Your task to perform on an android device: Open Yahoo.com Image 0: 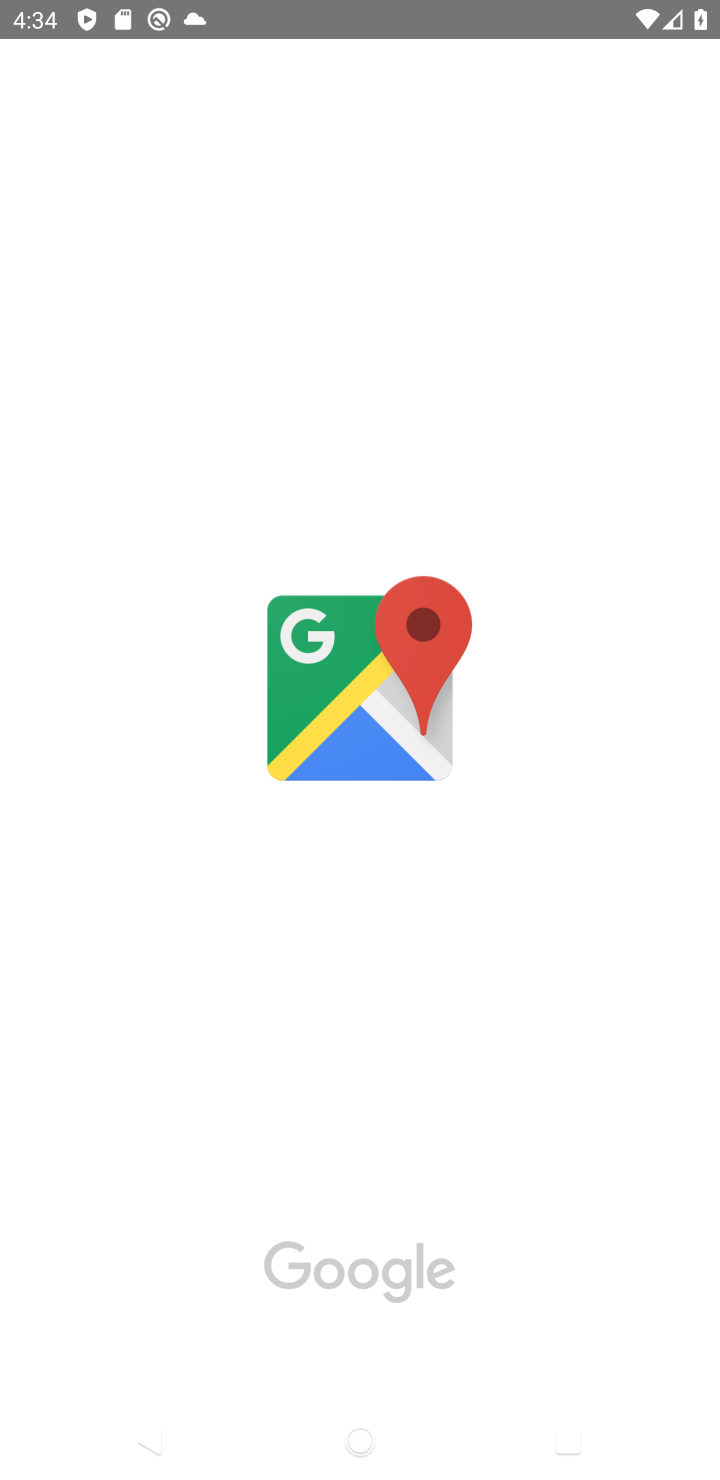
Step 0: press home button
Your task to perform on an android device: Open Yahoo.com Image 1: 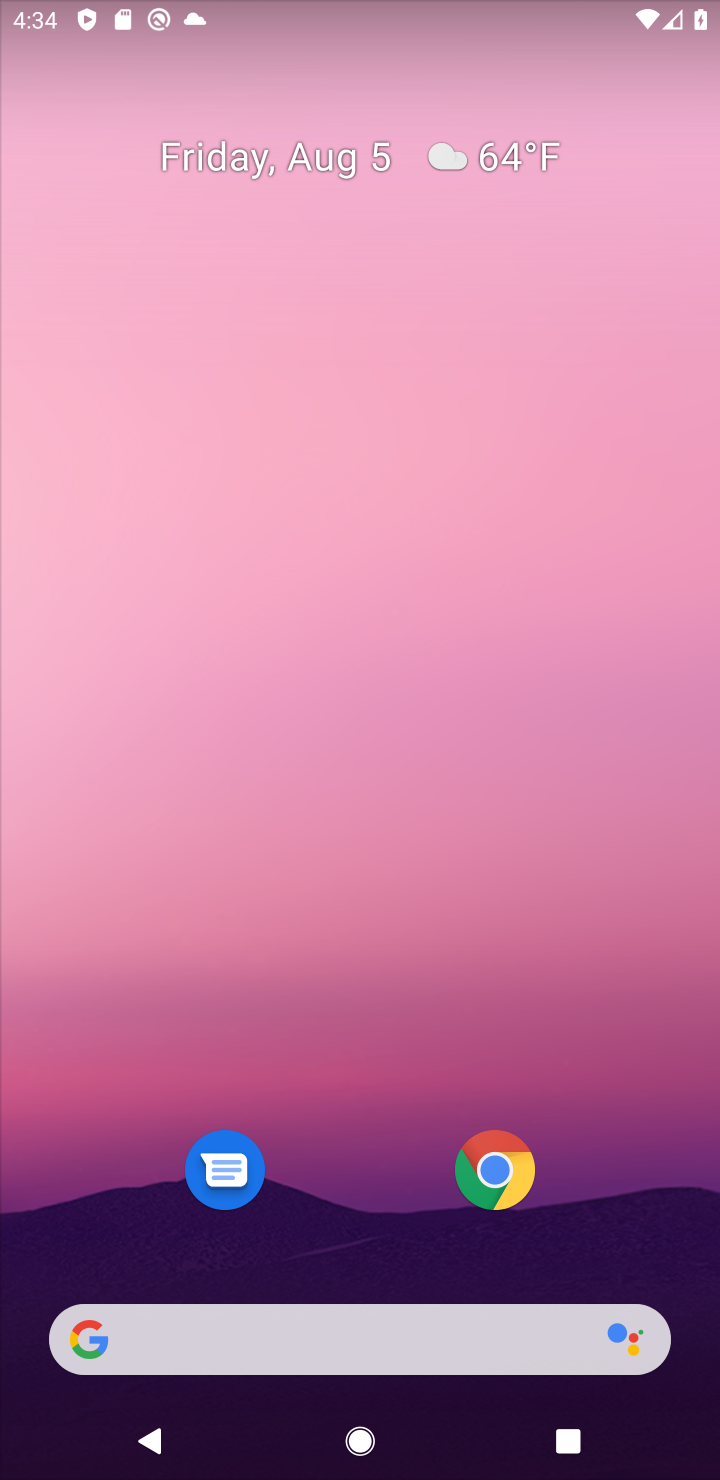
Step 1: click (78, 1356)
Your task to perform on an android device: Open Yahoo.com Image 2: 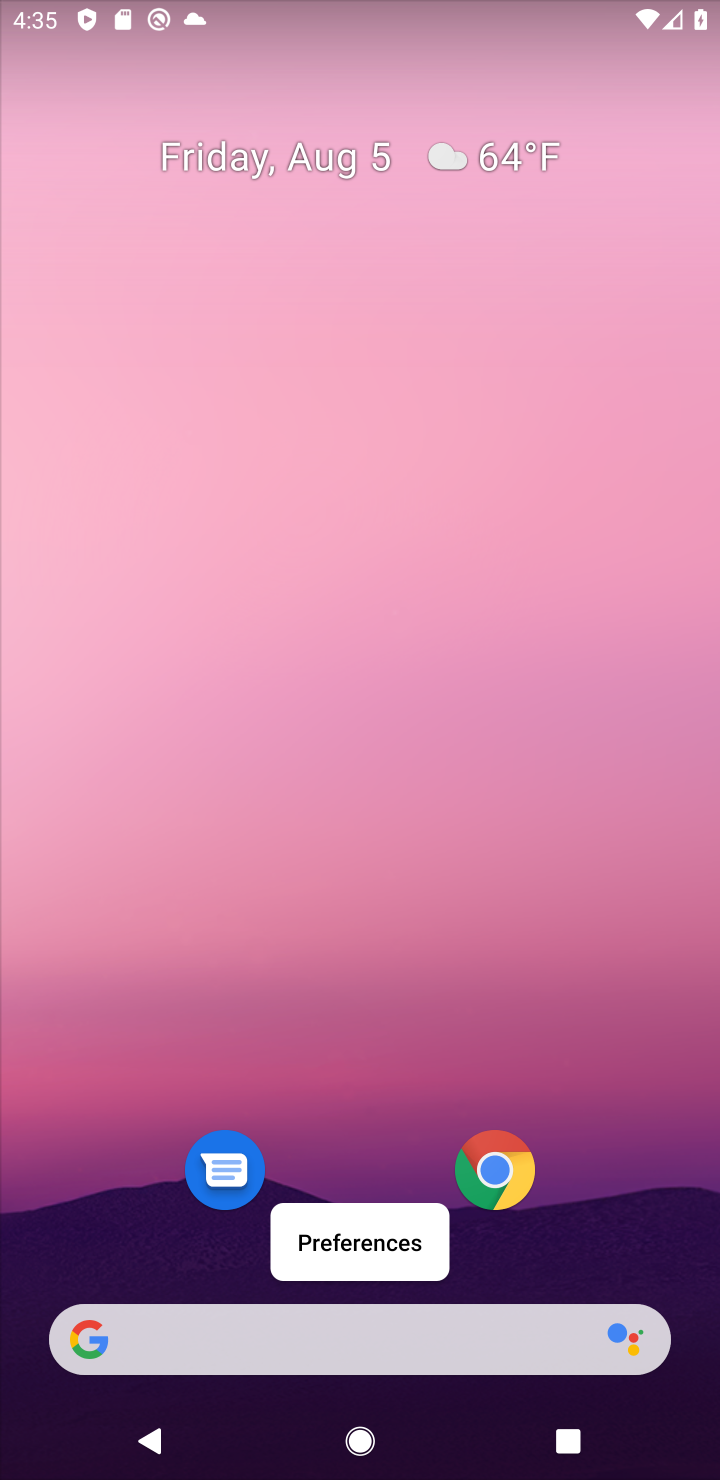
Step 2: type "Yahoo.com"
Your task to perform on an android device: Open Yahoo.com Image 3: 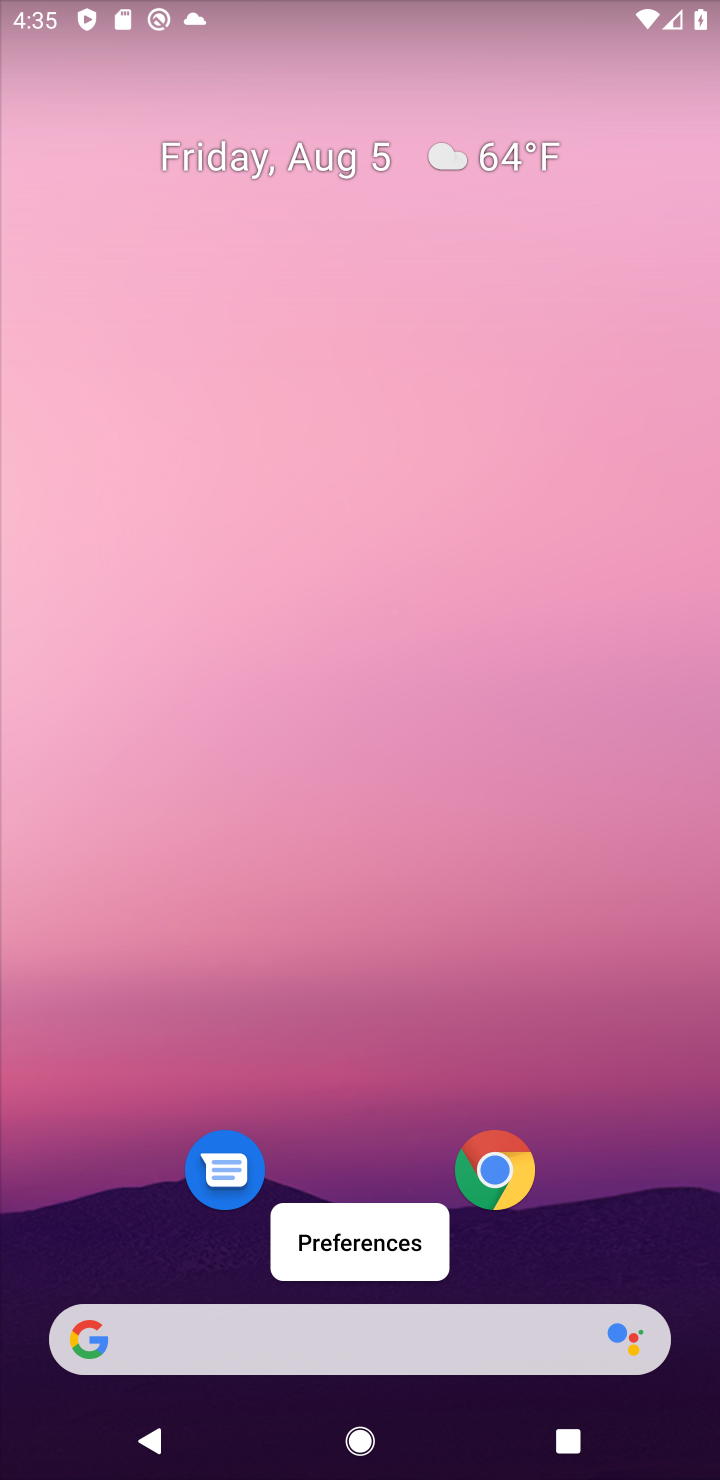
Step 3: click (85, 1341)
Your task to perform on an android device: Open Yahoo.com Image 4: 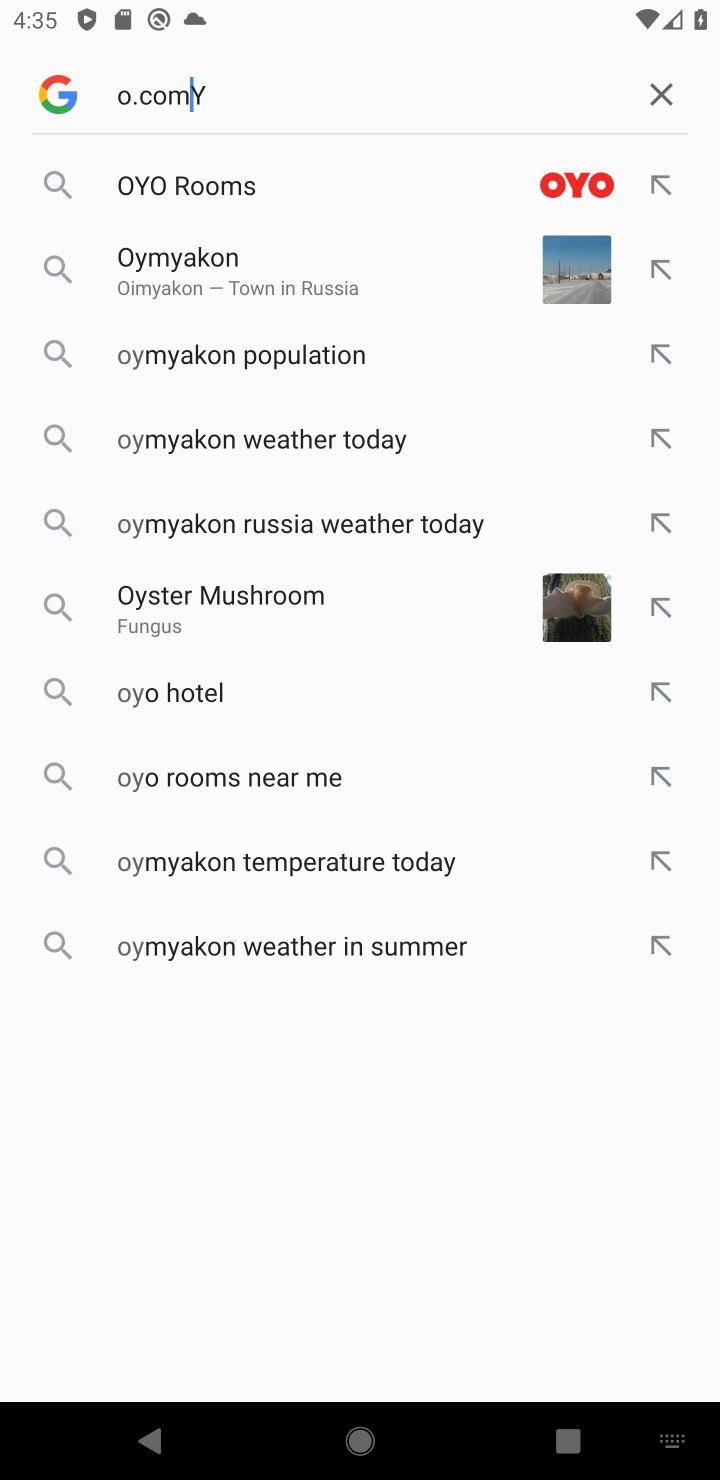
Step 4: press enter
Your task to perform on an android device: Open Yahoo.com Image 5: 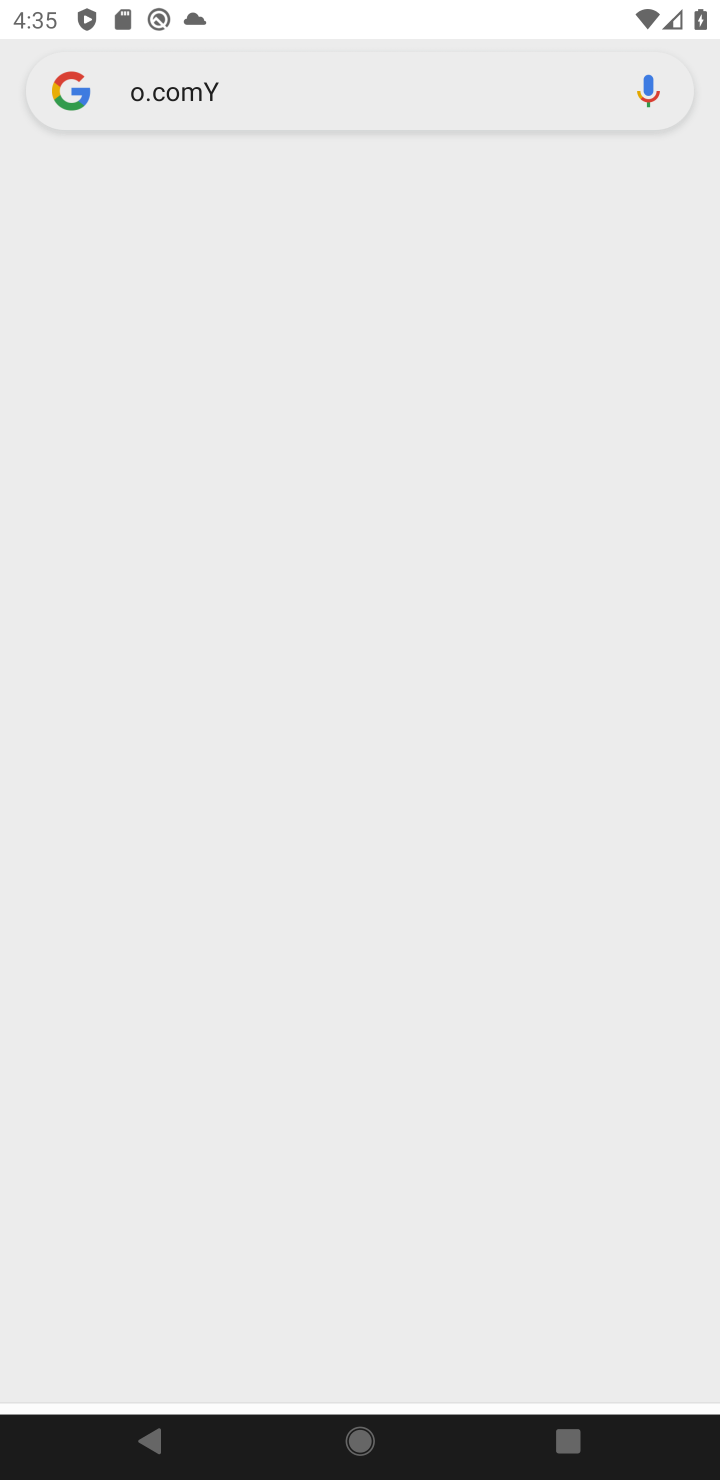
Step 5: click (416, 103)
Your task to perform on an android device: Open Yahoo.com Image 6: 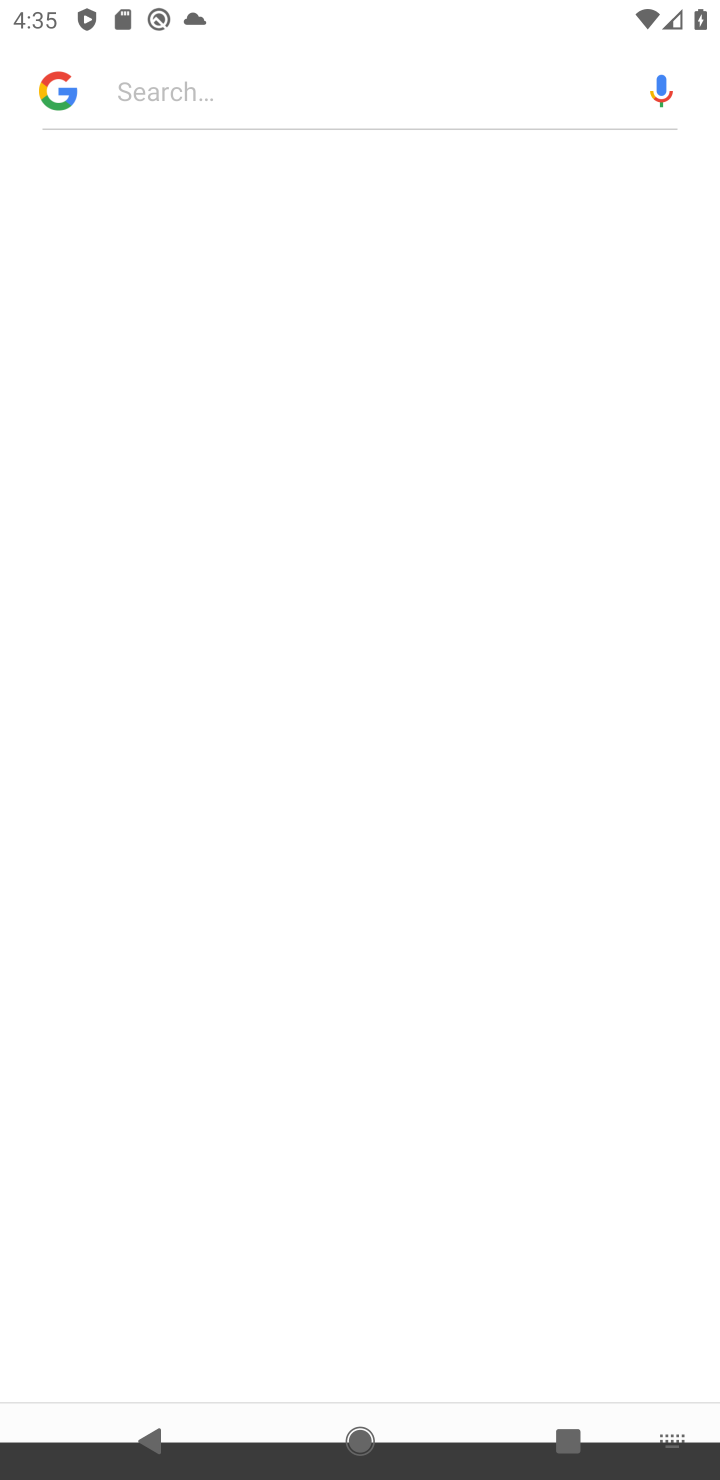
Step 6: click (412, 82)
Your task to perform on an android device: Open Yahoo.com Image 7: 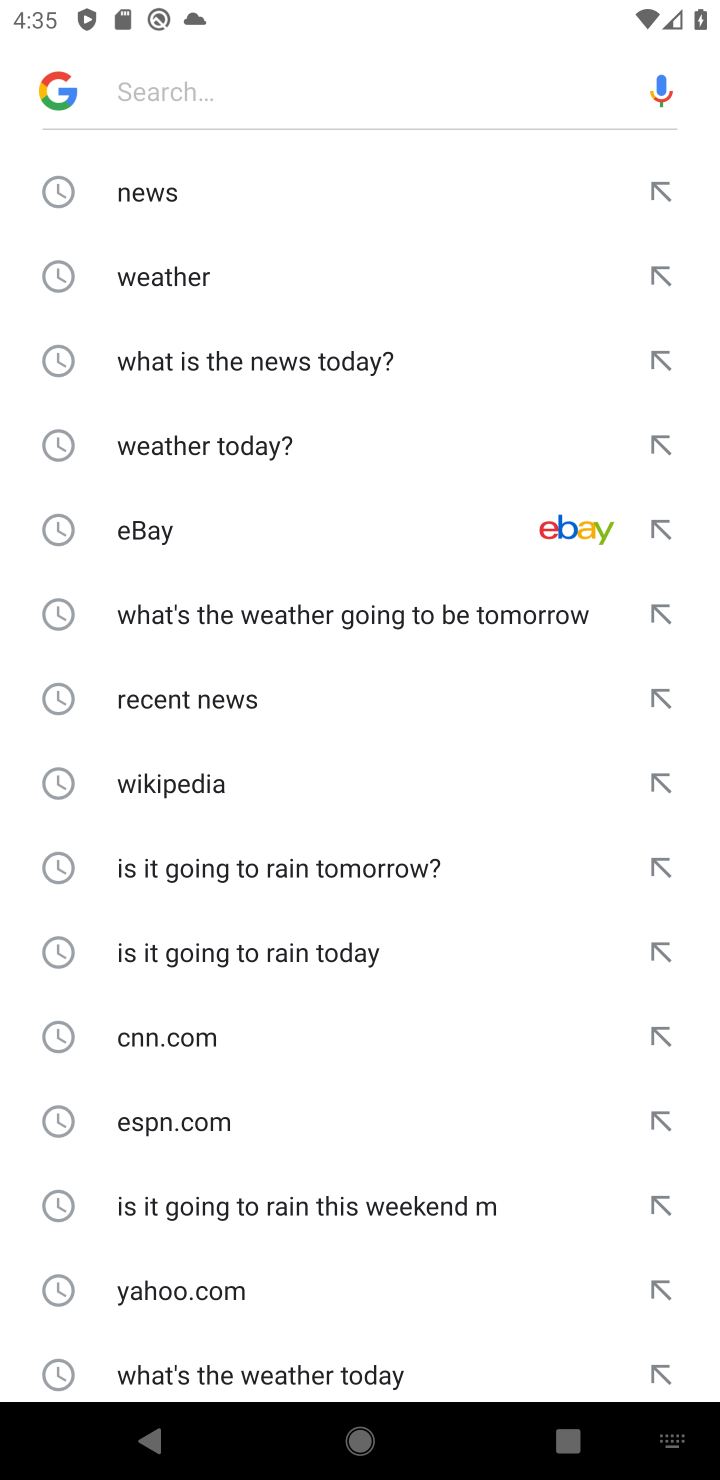
Step 7: press enter
Your task to perform on an android device: Open Yahoo.com Image 8: 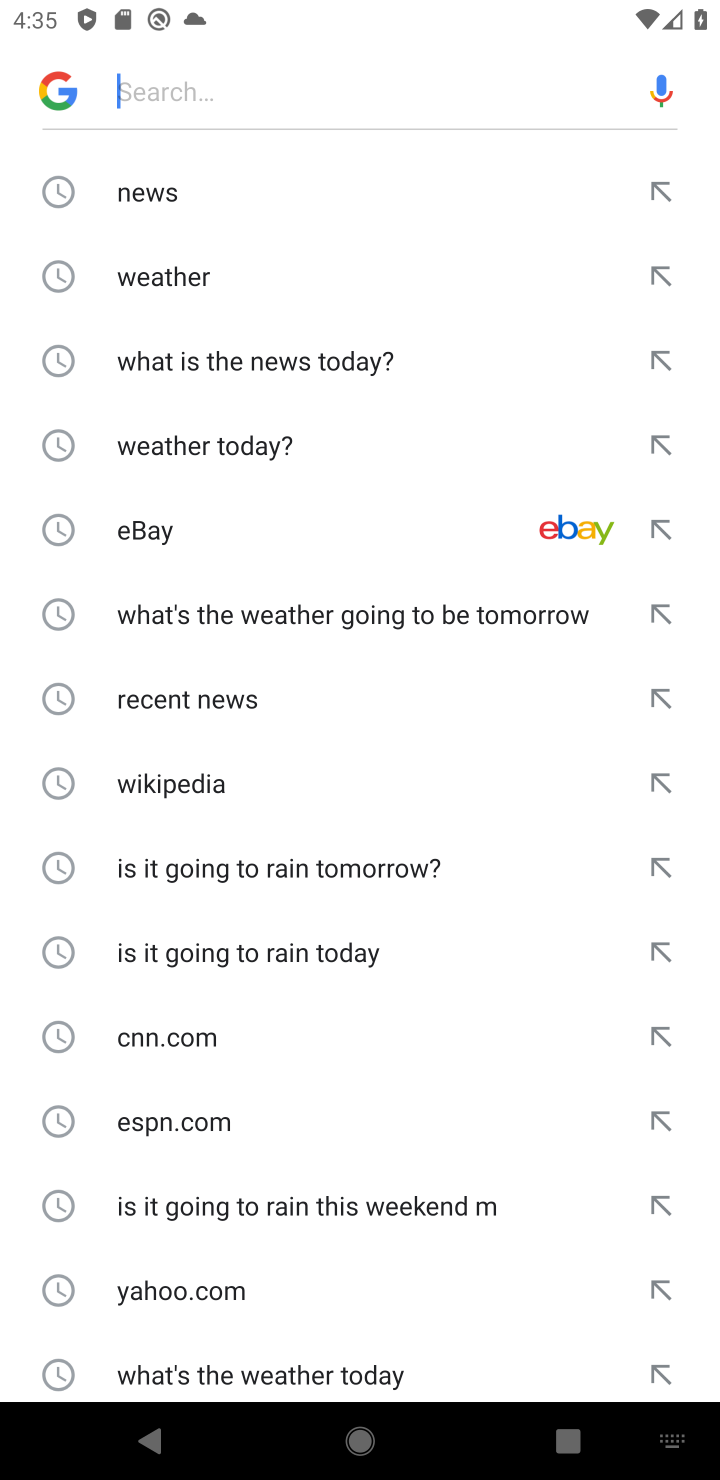
Step 8: type "Yahoo.com"
Your task to perform on an android device: Open Yahoo.com Image 9: 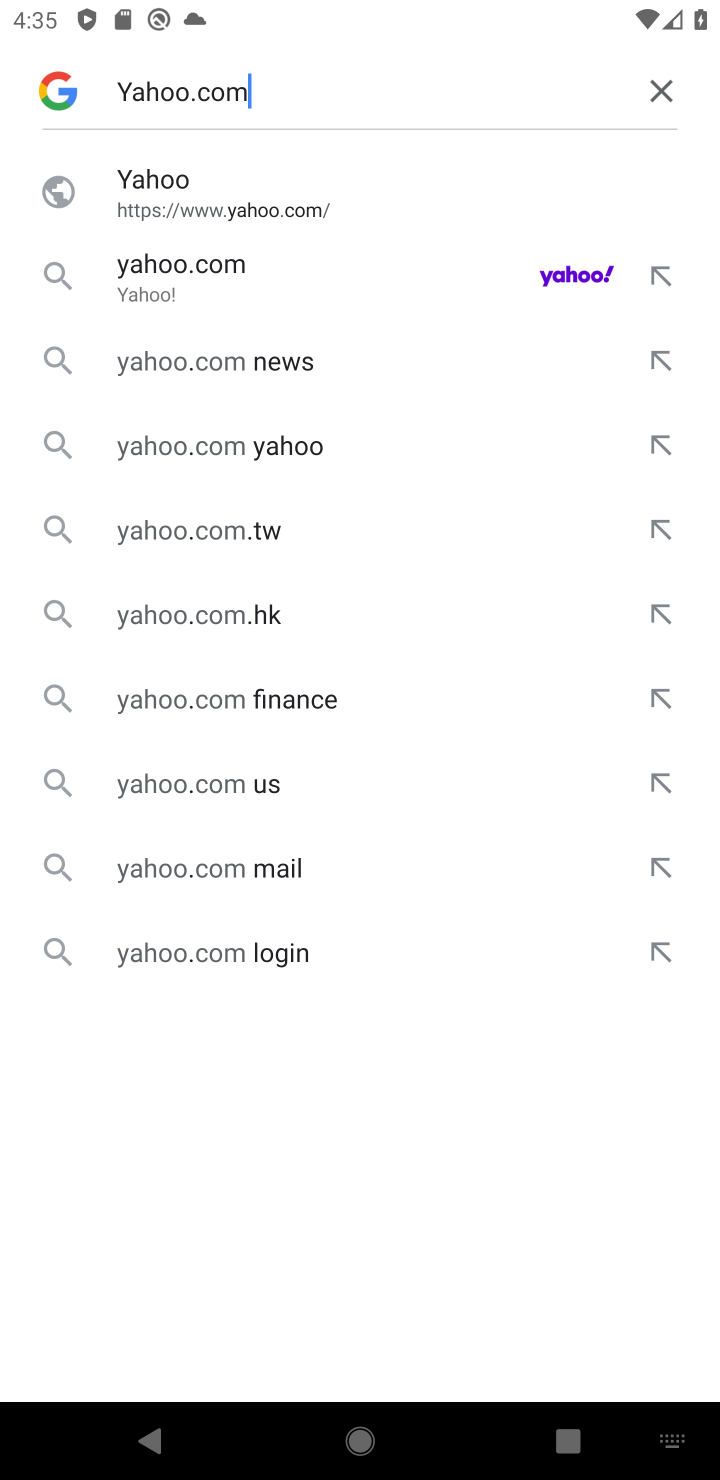
Step 9: click (136, 191)
Your task to perform on an android device: Open Yahoo.com Image 10: 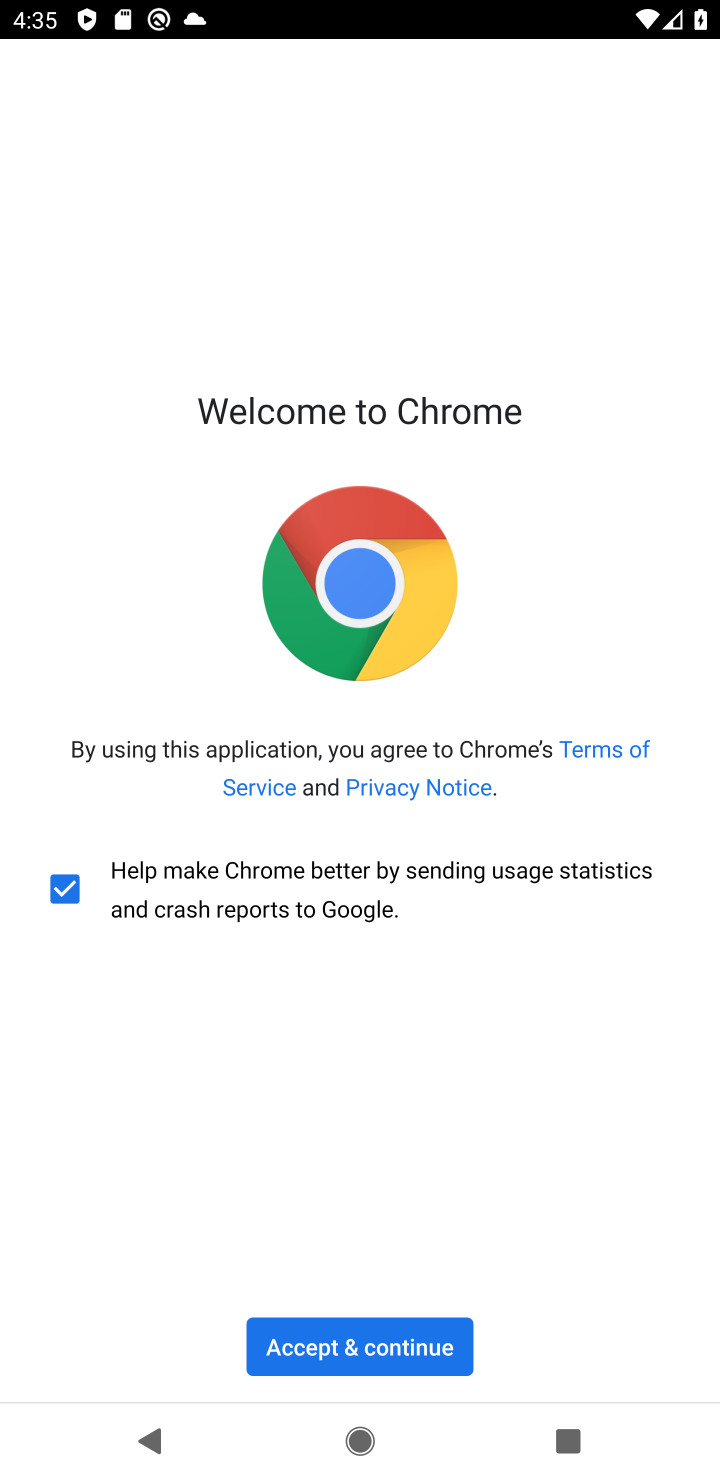
Step 10: click (309, 1351)
Your task to perform on an android device: Open Yahoo.com Image 11: 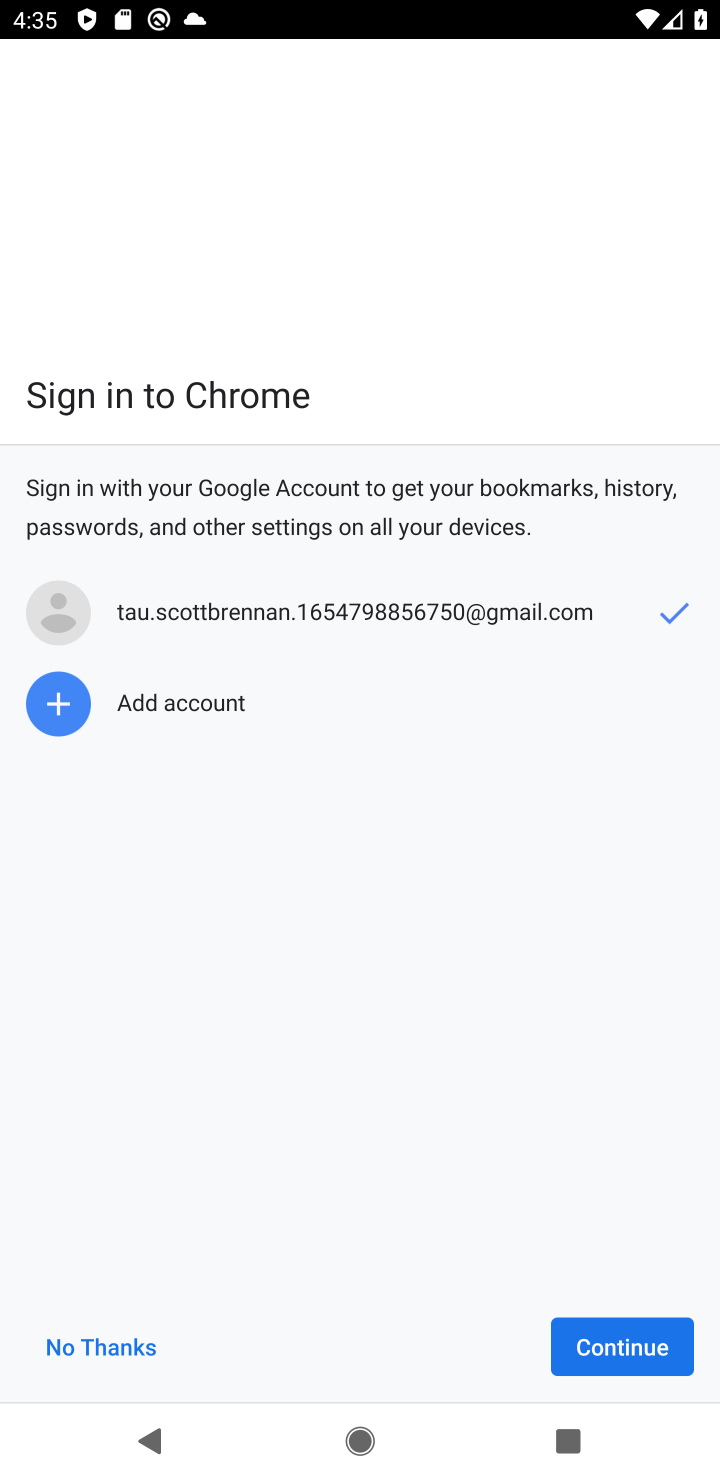
Step 11: click (597, 1357)
Your task to perform on an android device: Open Yahoo.com Image 12: 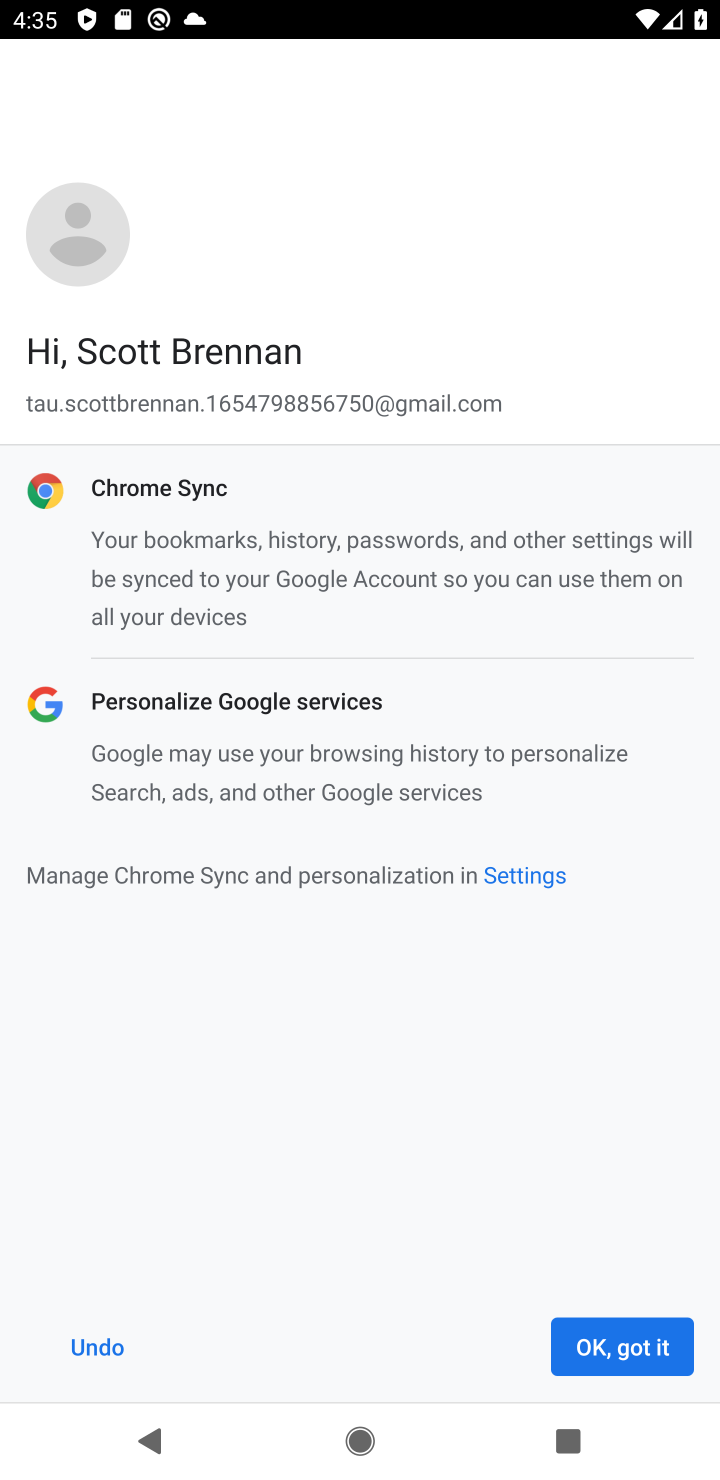
Step 12: click (597, 1357)
Your task to perform on an android device: Open Yahoo.com Image 13: 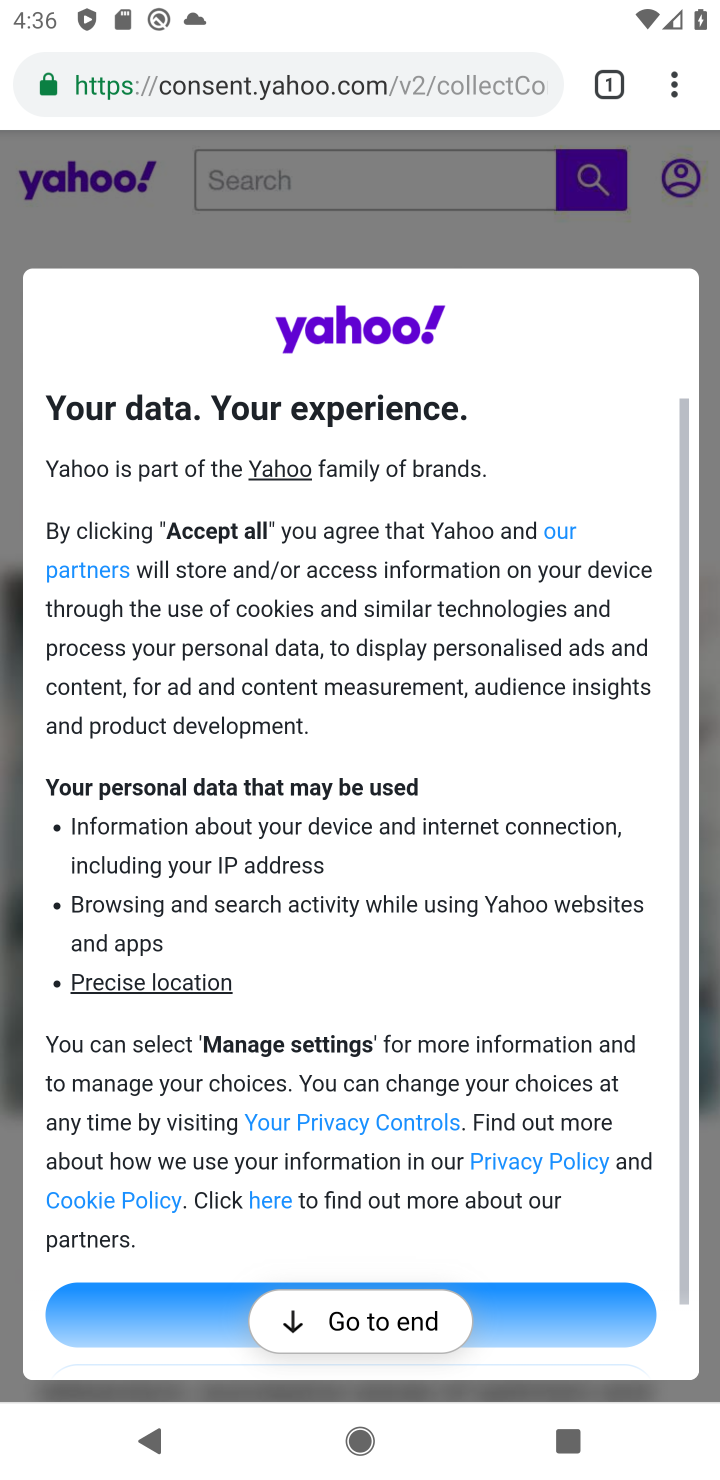
Step 13: click (347, 1316)
Your task to perform on an android device: Open Yahoo.com Image 14: 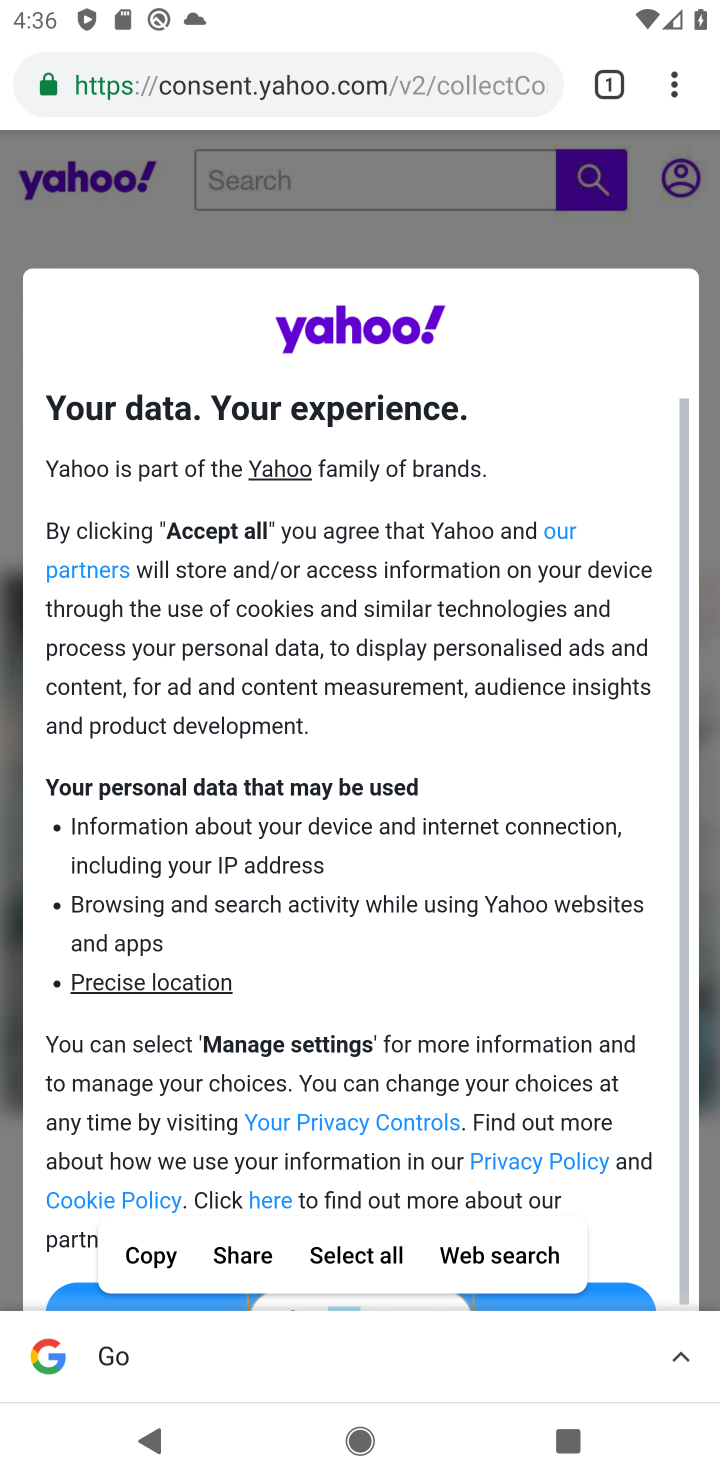
Step 14: task complete